Your task to perform on an android device: Do I have any events tomorrow? Image 0: 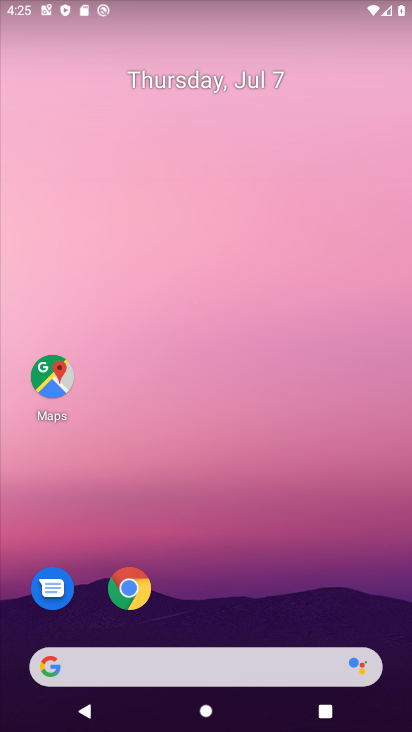
Step 0: drag from (297, 671) to (352, 101)
Your task to perform on an android device: Do I have any events tomorrow? Image 1: 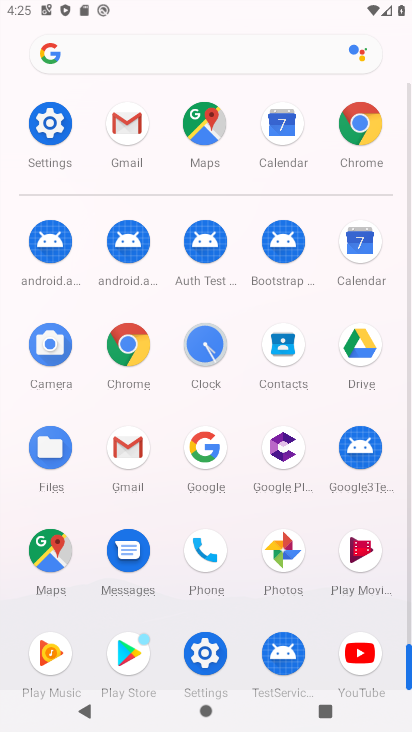
Step 1: click (352, 241)
Your task to perform on an android device: Do I have any events tomorrow? Image 2: 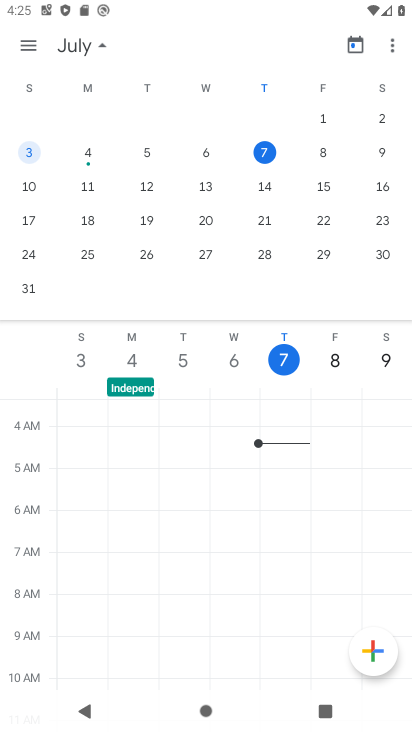
Step 2: click (320, 159)
Your task to perform on an android device: Do I have any events tomorrow? Image 3: 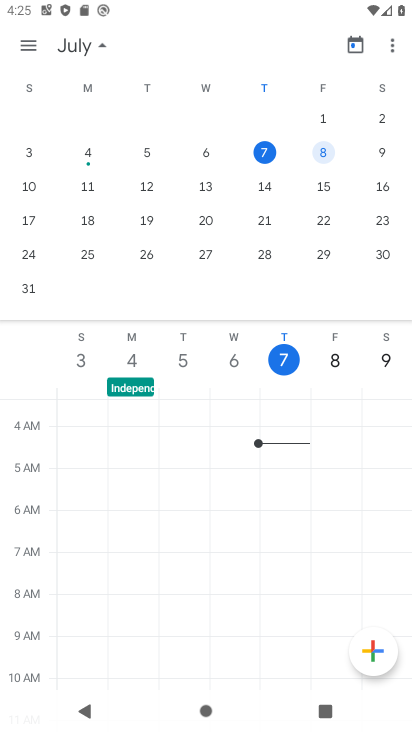
Step 3: task complete